Your task to perform on an android device: make emails show in primary in the gmail app Image 0: 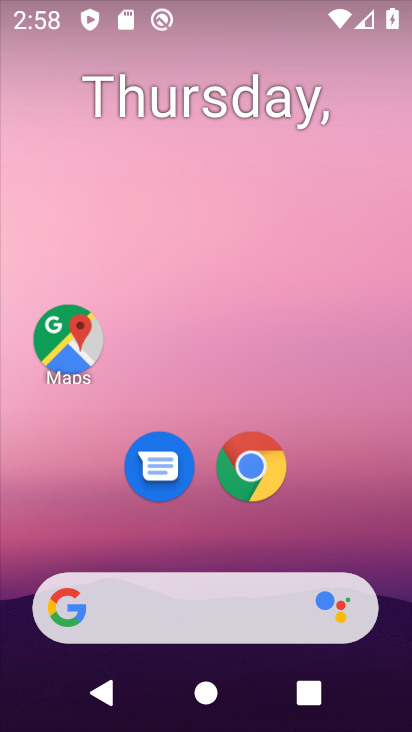
Step 0: drag from (155, 329) to (283, 32)
Your task to perform on an android device: make emails show in primary in the gmail app Image 1: 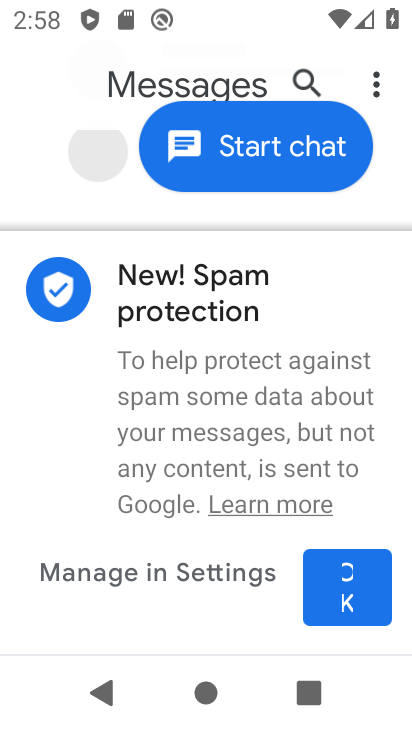
Step 1: press home button
Your task to perform on an android device: make emails show in primary in the gmail app Image 2: 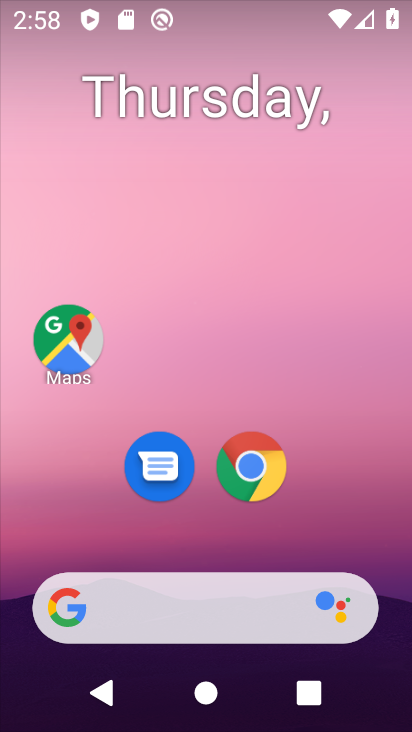
Step 2: drag from (198, 551) to (170, 14)
Your task to perform on an android device: make emails show in primary in the gmail app Image 3: 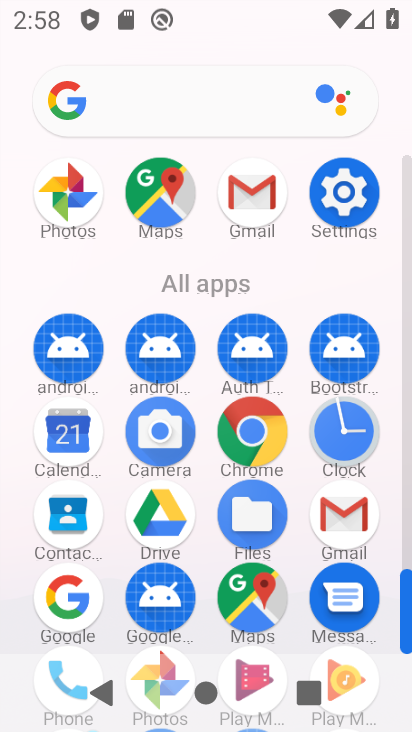
Step 3: click (340, 517)
Your task to perform on an android device: make emails show in primary in the gmail app Image 4: 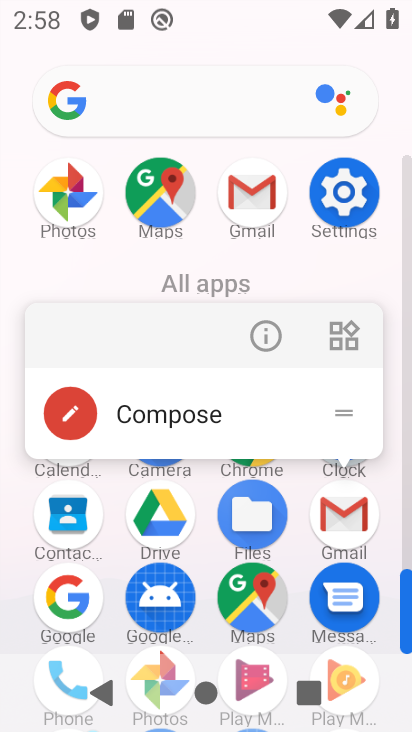
Step 4: click (349, 515)
Your task to perform on an android device: make emails show in primary in the gmail app Image 5: 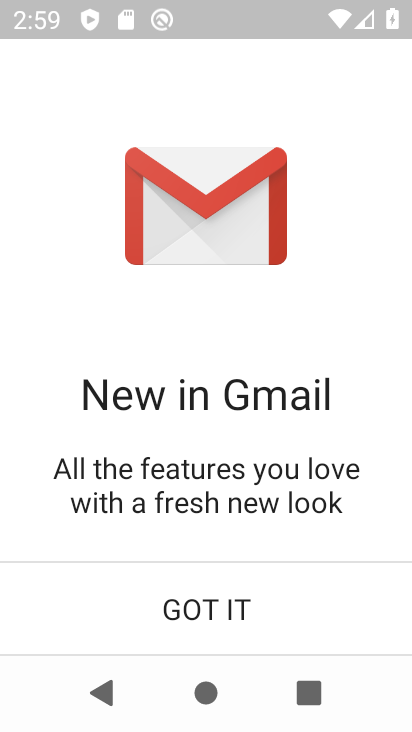
Step 5: click (238, 600)
Your task to perform on an android device: make emails show in primary in the gmail app Image 6: 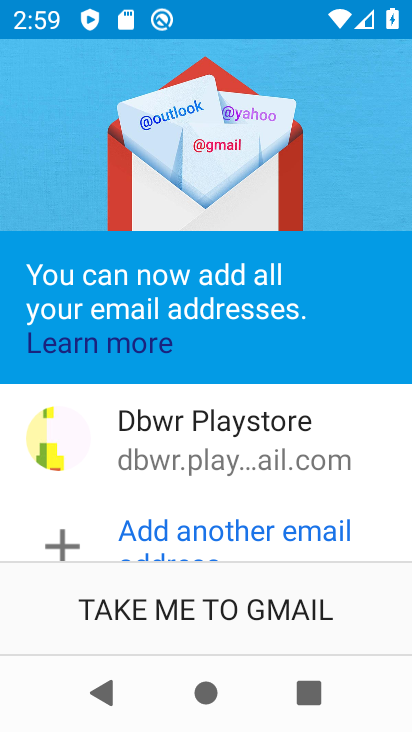
Step 6: click (240, 598)
Your task to perform on an android device: make emails show in primary in the gmail app Image 7: 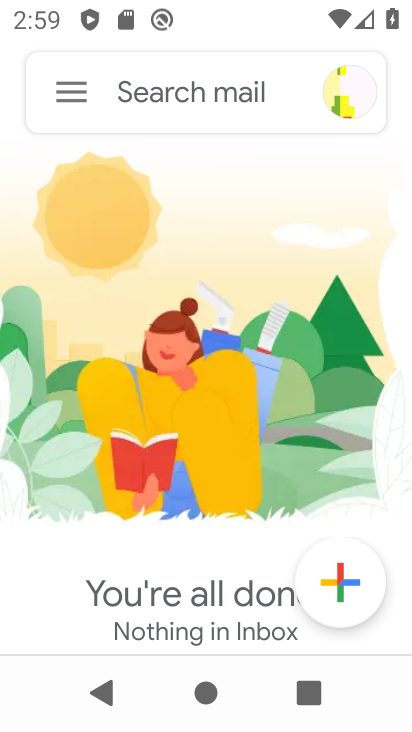
Step 7: click (52, 106)
Your task to perform on an android device: make emails show in primary in the gmail app Image 8: 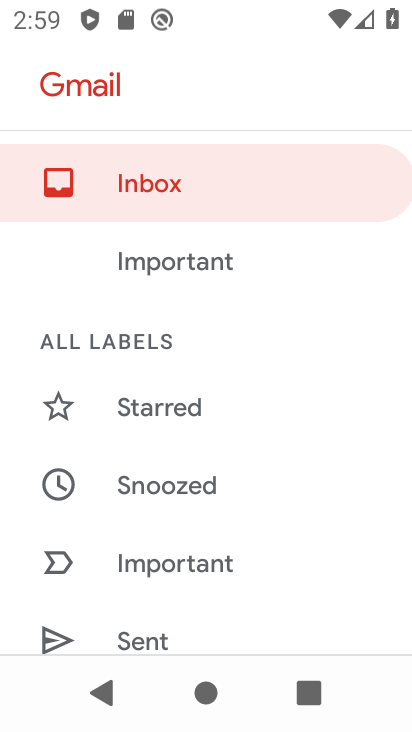
Step 8: drag from (157, 584) to (97, 196)
Your task to perform on an android device: make emails show in primary in the gmail app Image 9: 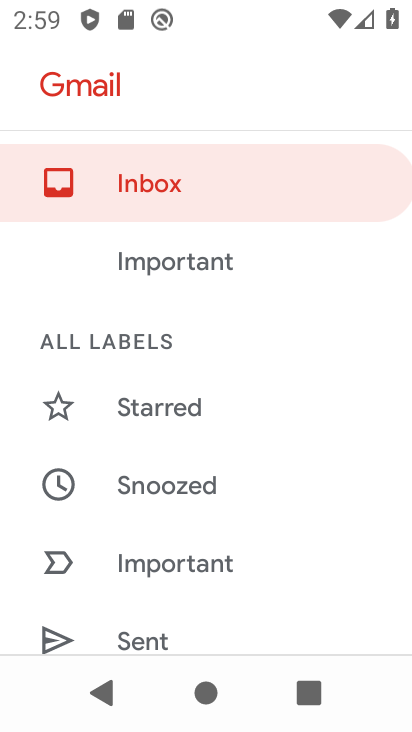
Step 9: drag from (208, 563) to (141, 179)
Your task to perform on an android device: make emails show in primary in the gmail app Image 10: 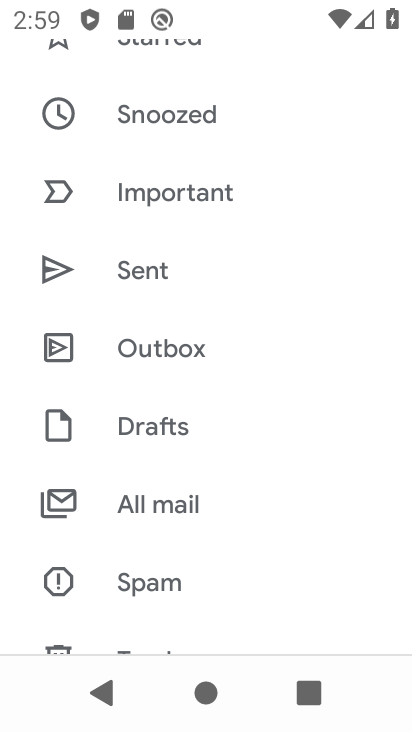
Step 10: drag from (220, 556) to (167, 140)
Your task to perform on an android device: make emails show in primary in the gmail app Image 11: 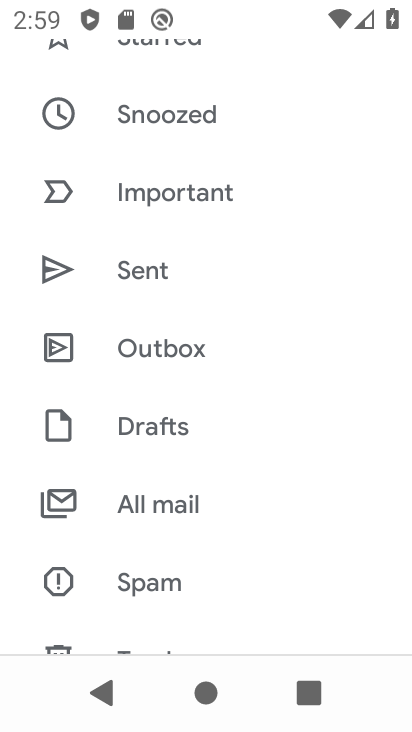
Step 11: drag from (215, 461) to (174, 146)
Your task to perform on an android device: make emails show in primary in the gmail app Image 12: 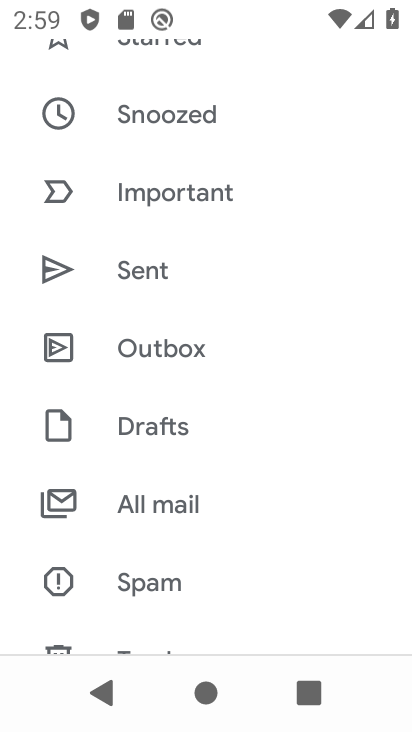
Step 12: drag from (199, 496) to (163, 125)
Your task to perform on an android device: make emails show in primary in the gmail app Image 13: 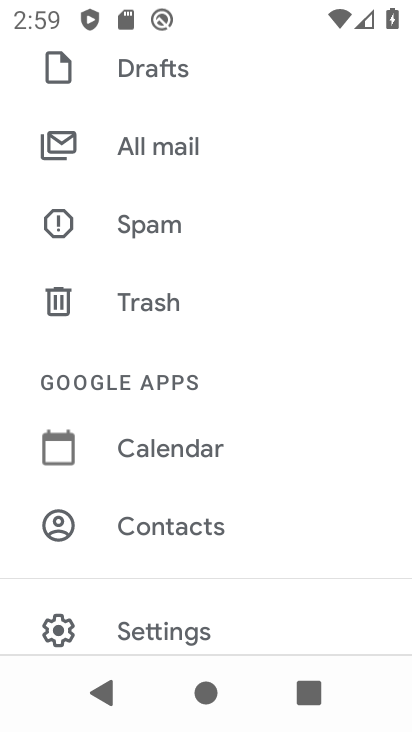
Step 13: click (222, 630)
Your task to perform on an android device: make emails show in primary in the gmail app Image 14: 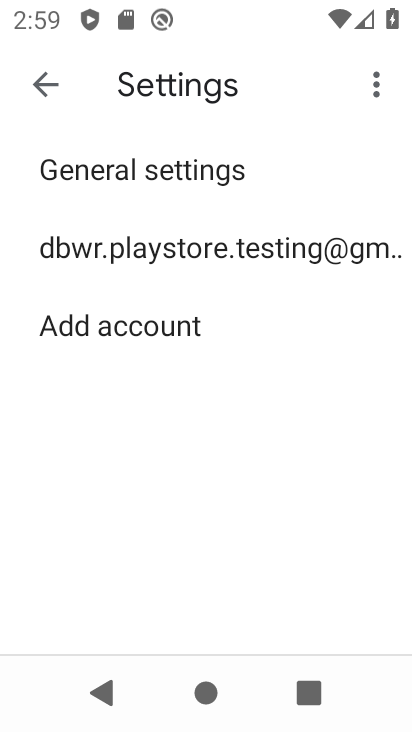
Step 14: click (147, 262)
Your task to perform on an android device: make emails show in primary in the gmail app Image 15: 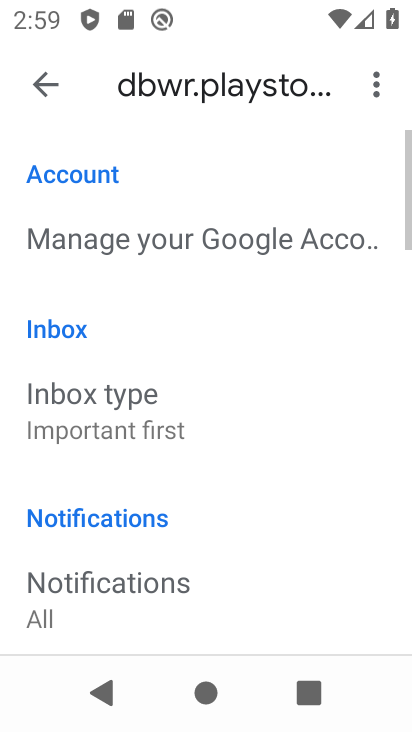
Step 15: click (167, 418)
Your task to perform on an android device: make emails show in primary in the gmail app Image 16: 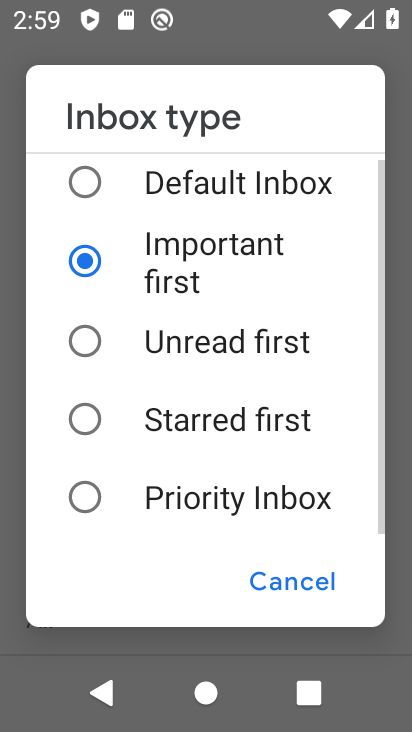
Step 16: click (198, 491)
Your task to perform on an android device: make emails show in primary in the gmail app Image 17: 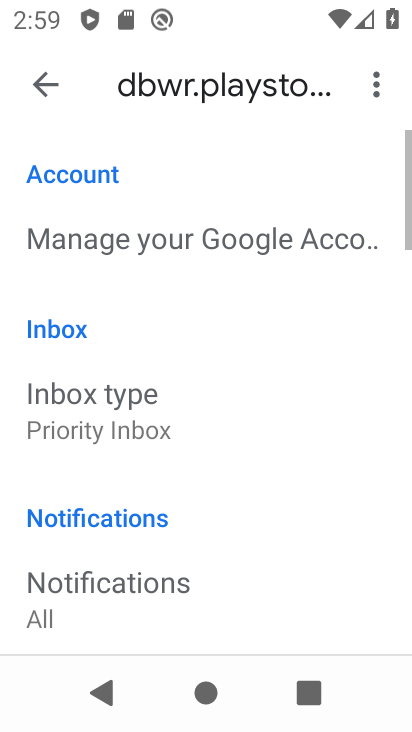
Step 17: click (148, 440)
Your task to perform on an android device: make emails show in primary in the gmail app Image 18: 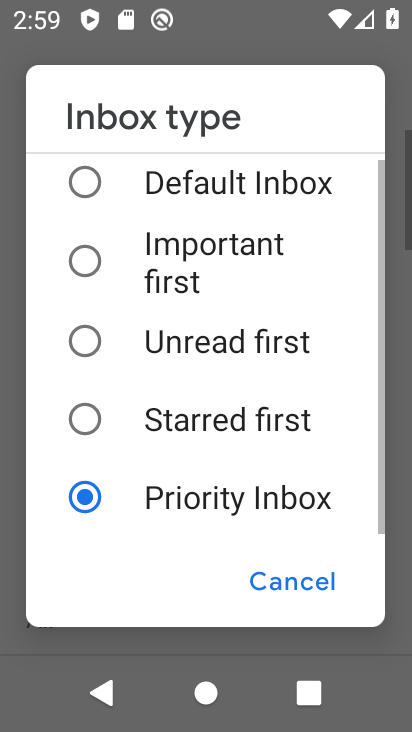
Step 18: click (104, 185)
Your task to perform on an android device: make emails show in primary in the gmail app Image 19: 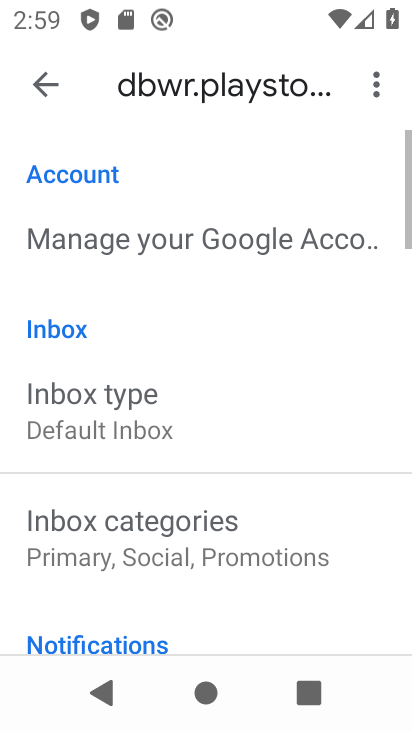
Step 19: task complete